Your task to perform on an android device: find photos in the google photos app Image 0: 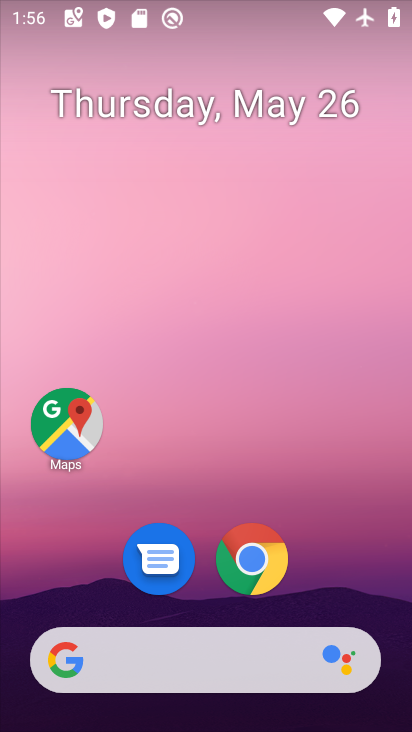
Step 0: press home button
Your task to perform on an android device: find photos in the google photos app Image 1: 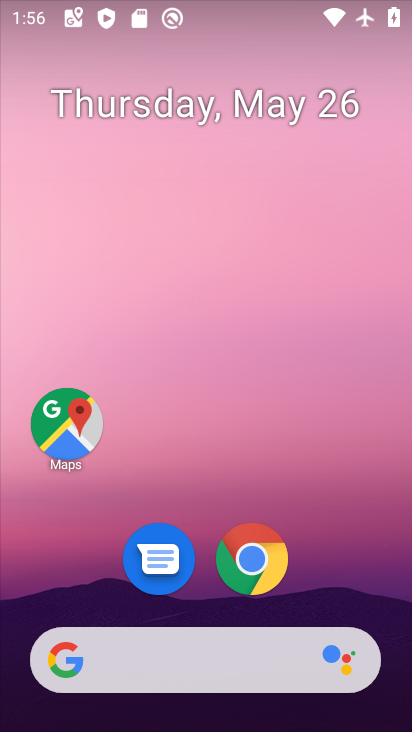
Step 1: drag from (144, 656) to (309, 138)
Your task to perform on an android device: find photos in the google photos app Image 2: 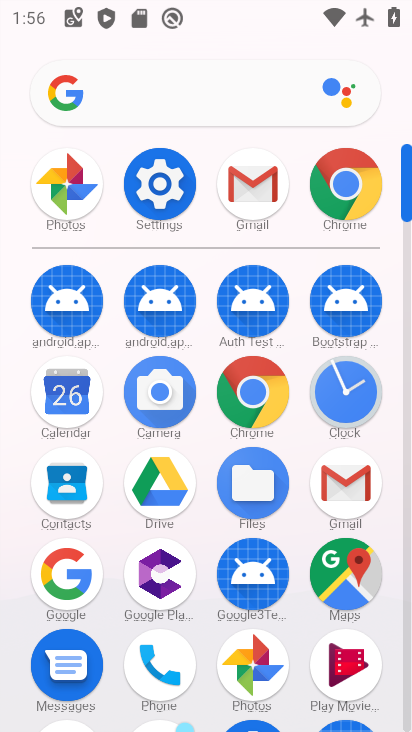
Step 2: click (252, 671)
Your task to perform on an android device: find photos in the google photos app Image 3: 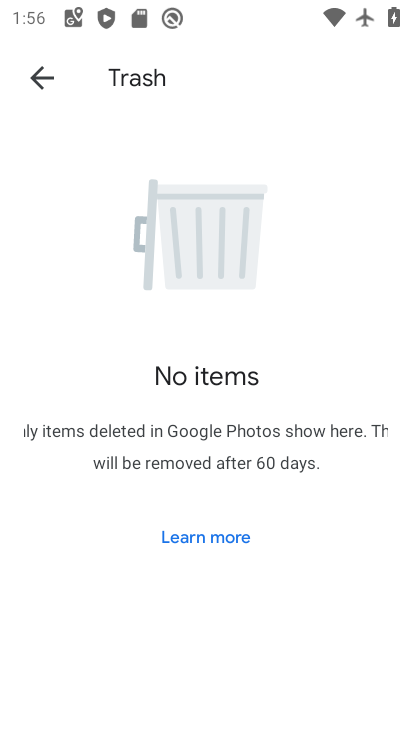
Step 3: click (44, 74)
Your task to perform on an android device: find photos in the google photos app Image 4: 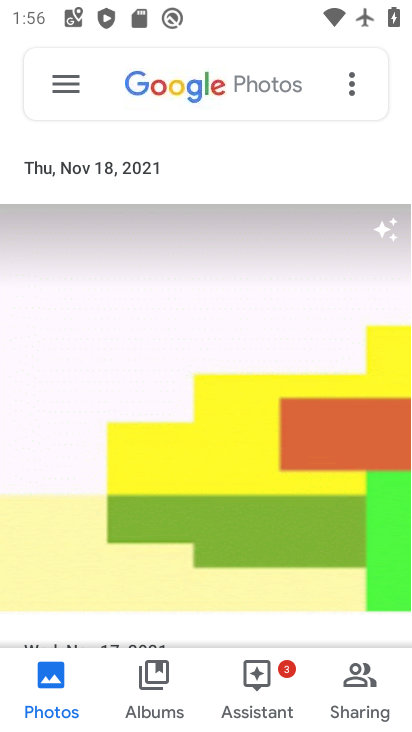
Step 4: task complete